Your task to perform on an android device: find snoozed emails in the gmail app Image 0: 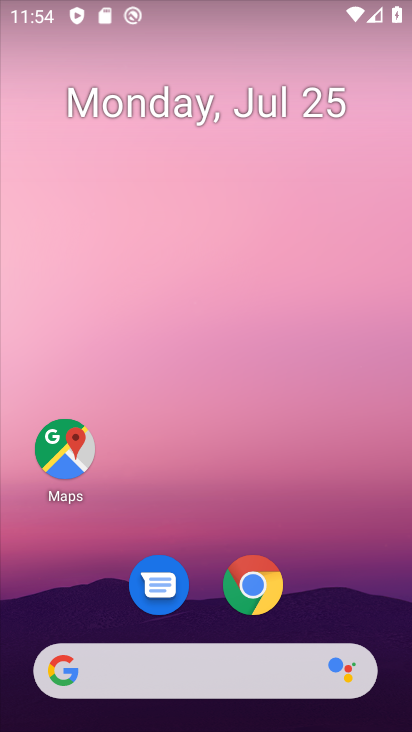
Step 0: drag from (334, 561) to (324, 35)
Your task to perform on an android device: find snoozed emails in the gmail app Image 1: 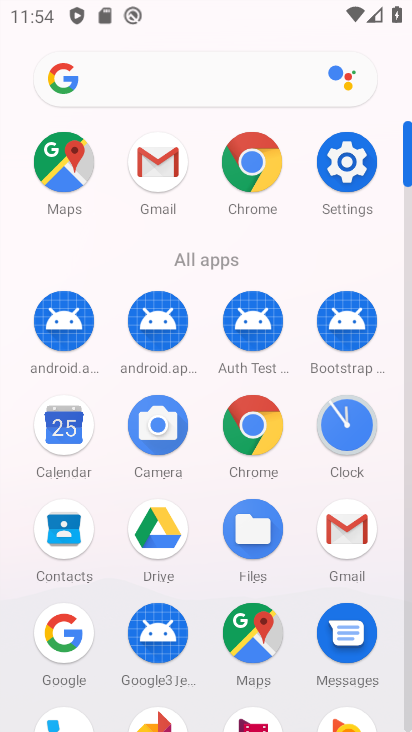
Step 1: click (159, 163)
Your task to perform on an android device: find snoozed emails in the gmail app Image 2: 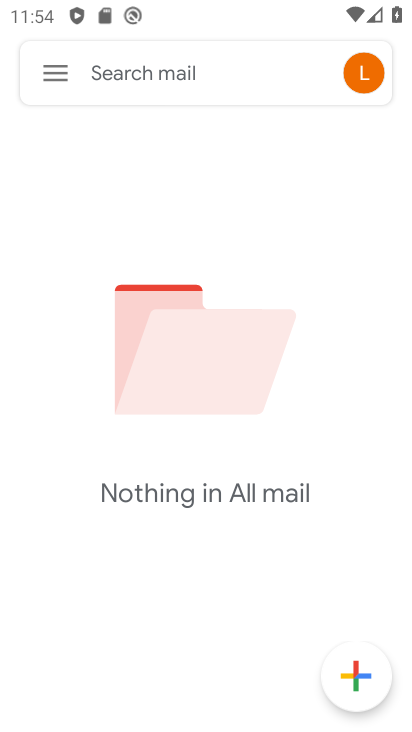
Step 2: click (56, 71)
Your task to perform on an android device: find snoozed emails in the gmail app Image 3: 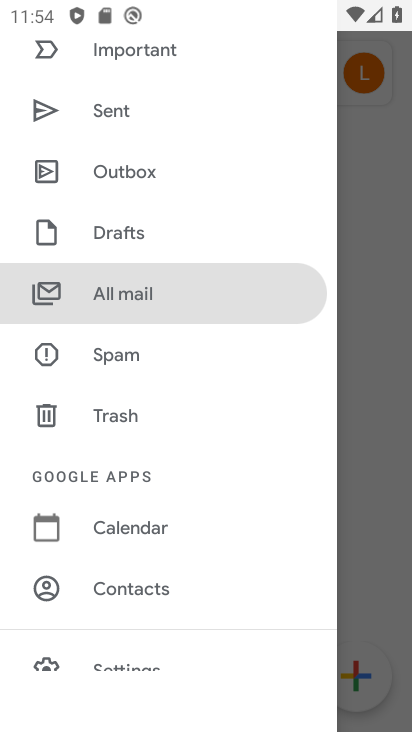
Step 3: drag from (180, 146) to (170, 462)
Your task to perform on an android device: find snoozed emails in the gmail app Image 4: 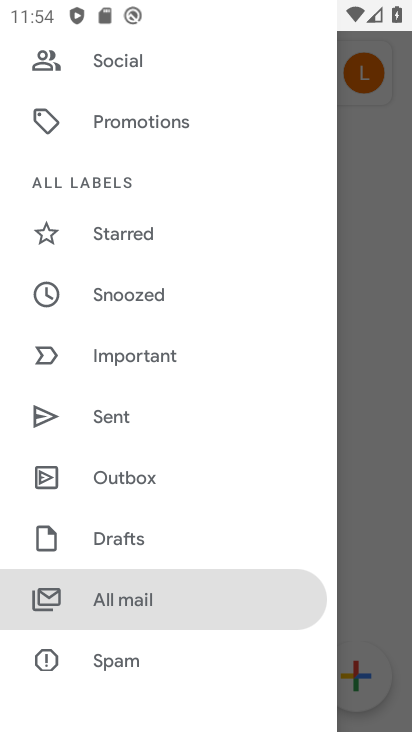
Step 4: click (150, 285)
Your task to perform on an android device: find snoozed emails in the gmail app Image 5: 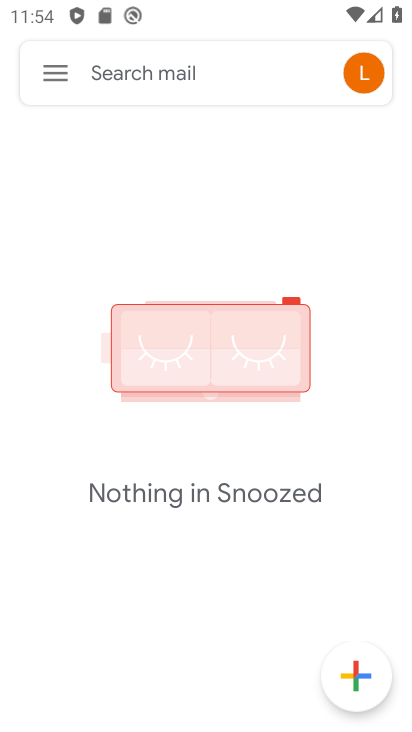
Step 5: task complete